Your task to perform on an android device: Open Google Maps Image 0: 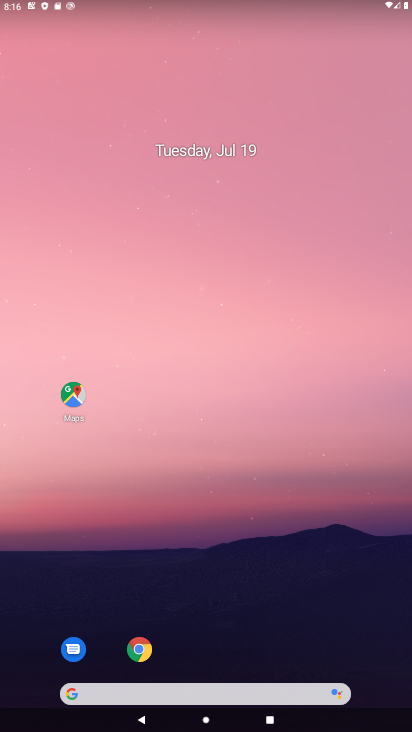
Step 0: click (69, 397)
Your task to perform on an android device: Open Google Maps Image 1: 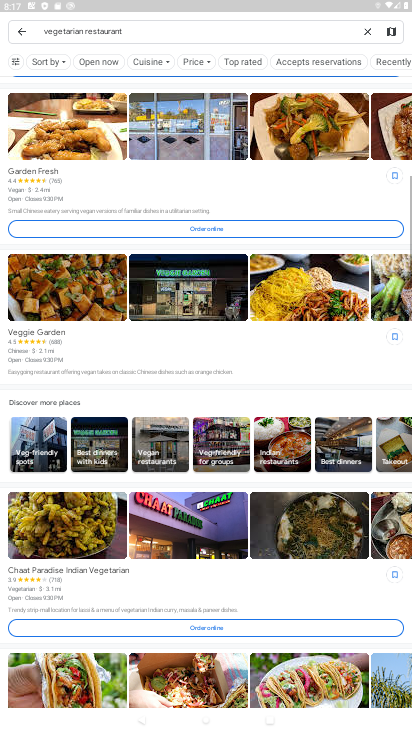
Step 1: click (24, 25)
Your task to perform on an android device: Open Google Maps Image 2: 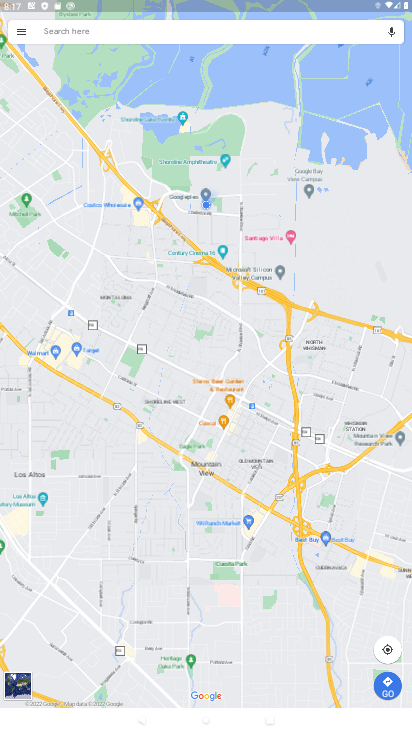
Step 2: task complete